Your task to perform on an android device: check the backup settings in the google photos Image 0: 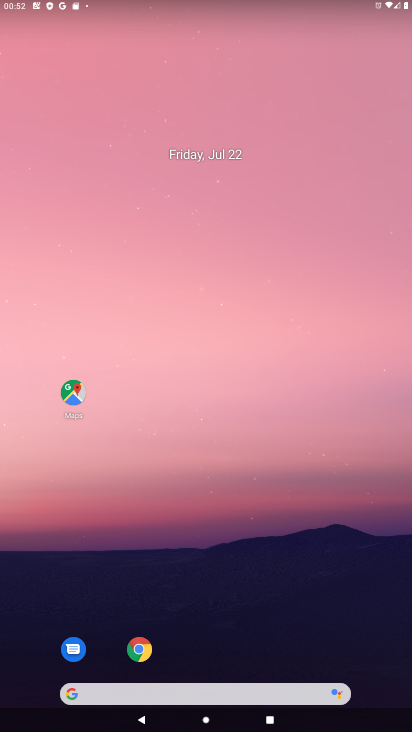
Step 0: drag from (284, 564) to (223, 6)
Your task to perform on an android device: check the backup settings in the google photos Image 1: 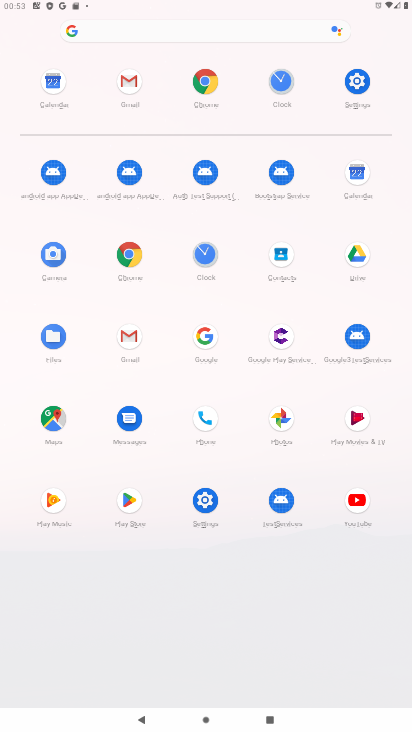
Step 1: click (287, 422)
Your task to perform on an android device: check the backup settings in the google photos Image 2: 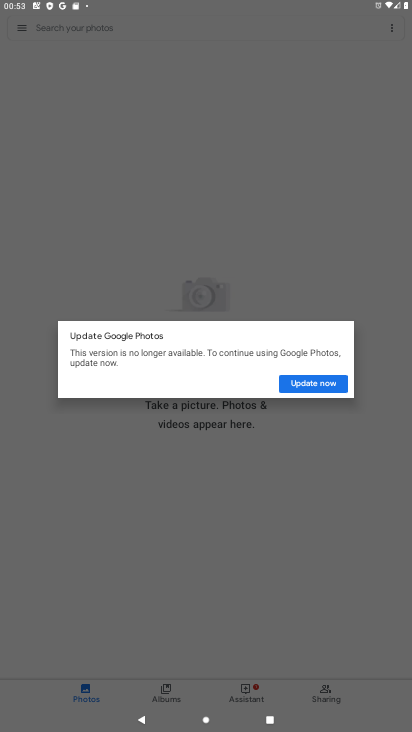
Step 2: click (312, 376)
Your task to perform on an android device: check the backup settings in the google photos Image 3: 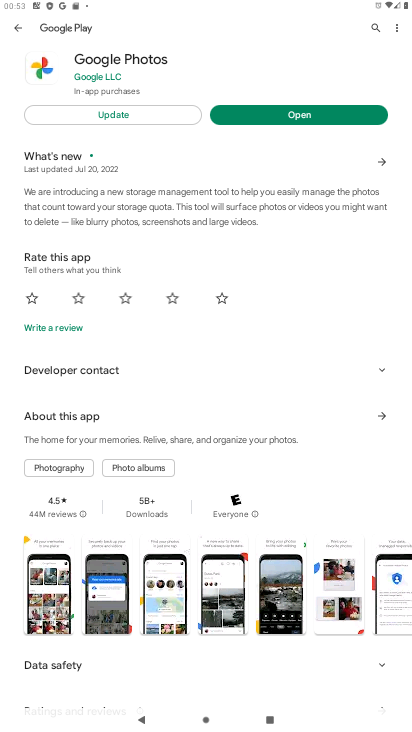
Step 3: click (155, 112)
Your task to perform on an android device: check the backup settings in the google photos Image 4: 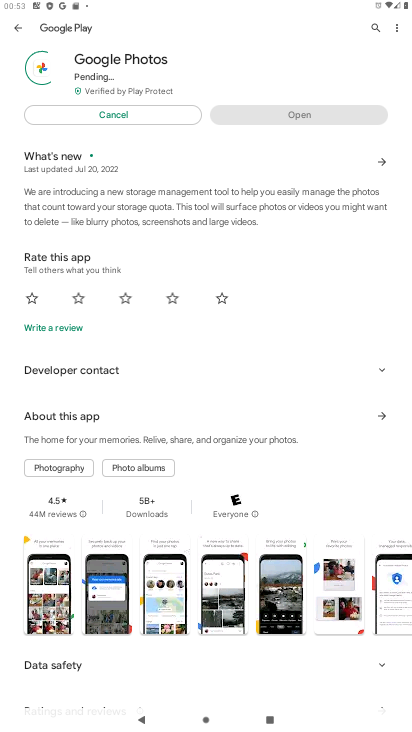
Step 4: task complete